Your task to perform on an android device: open wifi settings Image 0: 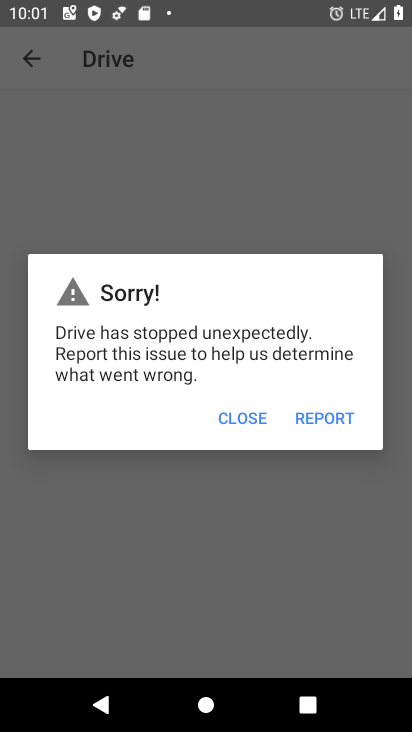
Step 0: press home button
Your task to perform on an android device: open wifi settings Image 1: 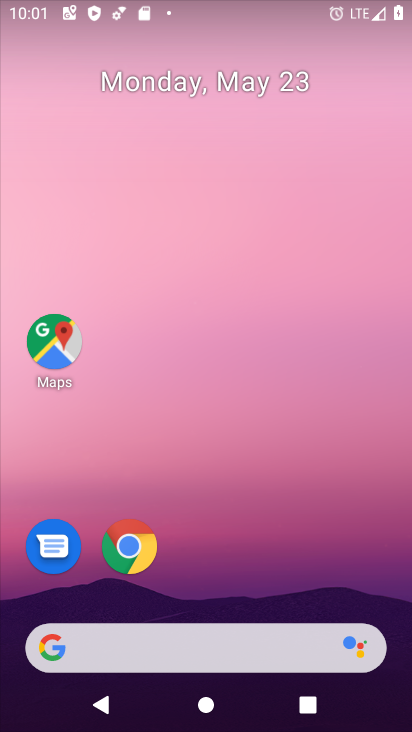
Step 1: drag from (377, 605) to (264, 65)
Your task to perform on an android device: open wifi settings Image 2: 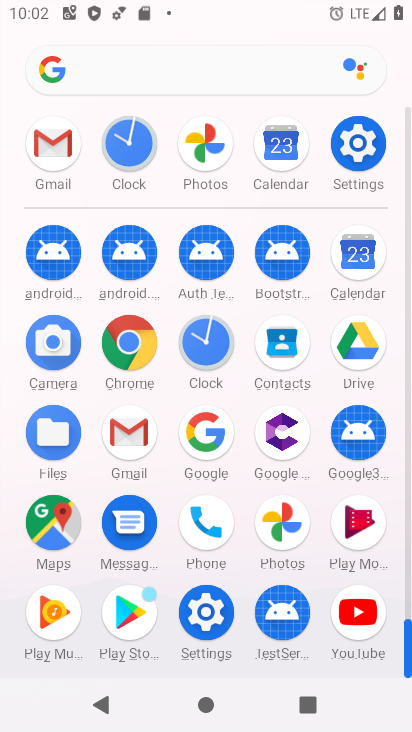
Step 2: click (204, 610)
Your task to perform on an android device: open wifi settings Image 3: 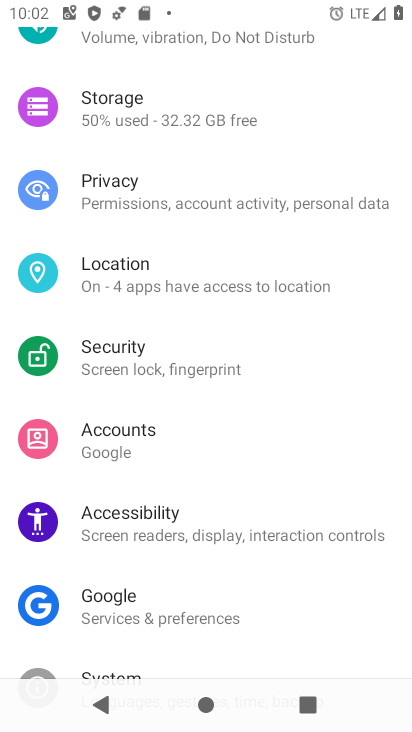
Step 3: drag from (314, 242) to (306, 559)
Your task to perform on an android device: open wifi settings Image 4: 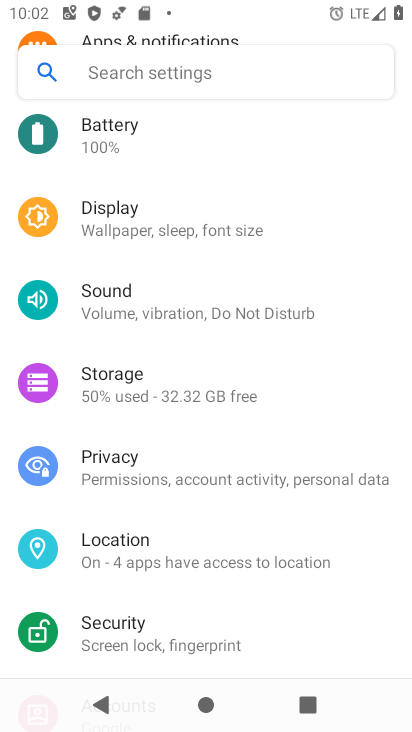
Step 4: drag from (320, 227) to (301, 456)
Your task to perform on an android device: open wifi settings Image 5: 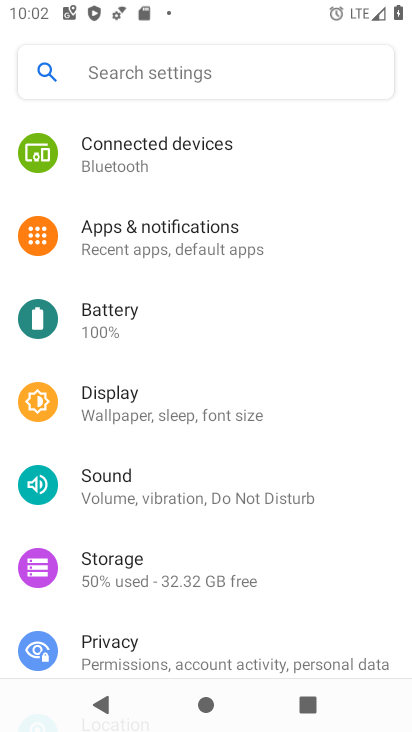
Step 5: drag from (312, 258) to (272, 453)
Your task to perform on an android device: open wifi settings Image 6: 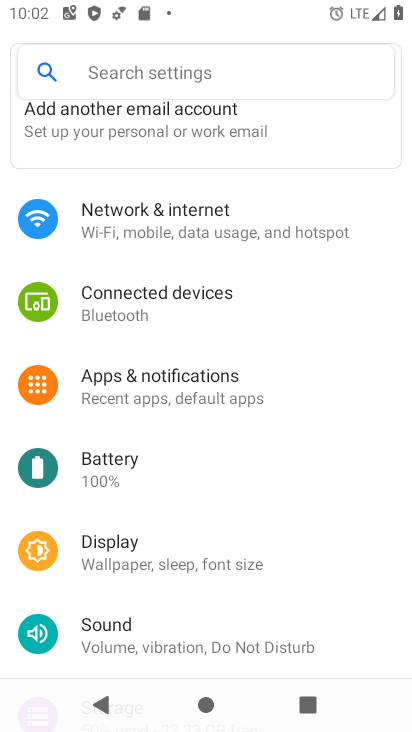
Step 6: click (125, 205)
Your task to perform on an android device: open wifi settings Image 7: 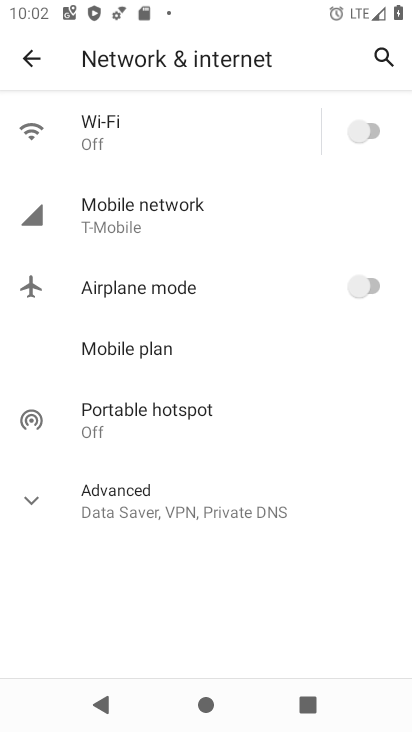
Step 7: click (106, 121)
Your task to perform on an android device: open wifi settings Image 8: 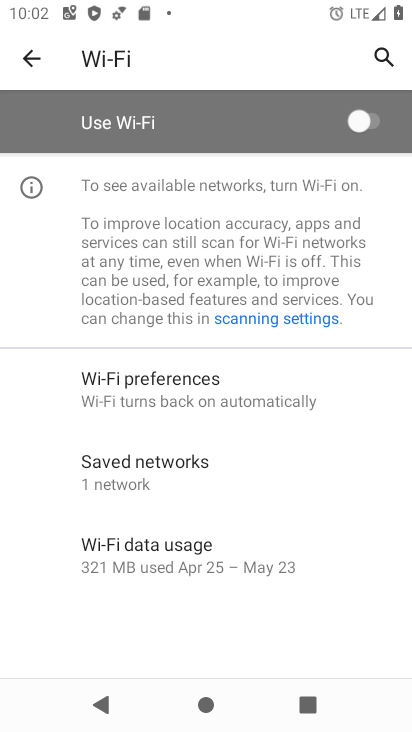
Step 8: task complete